Your task to perform on an android device: Go to Reddit.com Image 0: 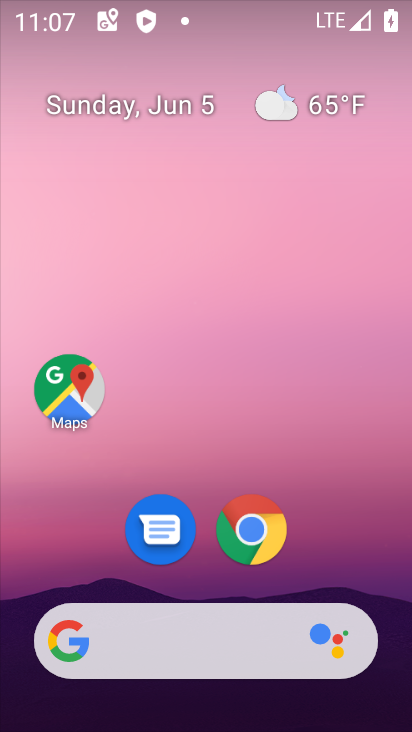
Step 0: click (213, 656)
Your task to perform on an android device: Go to Reddit.com Image 1: 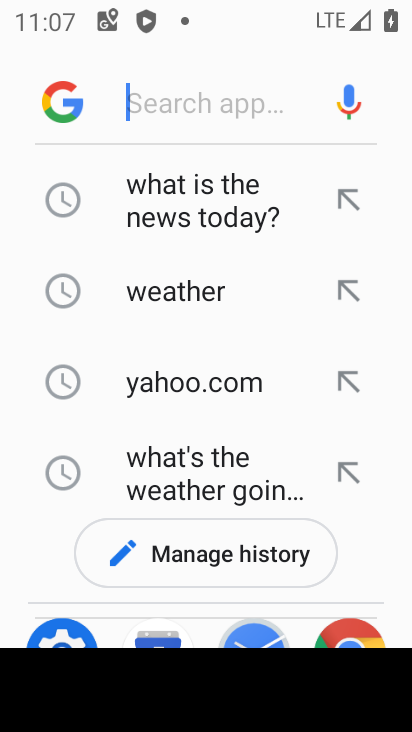
Step 1: type "reddit.com"
Your task to perform on an android device: Go to Reddit.com Image 2: 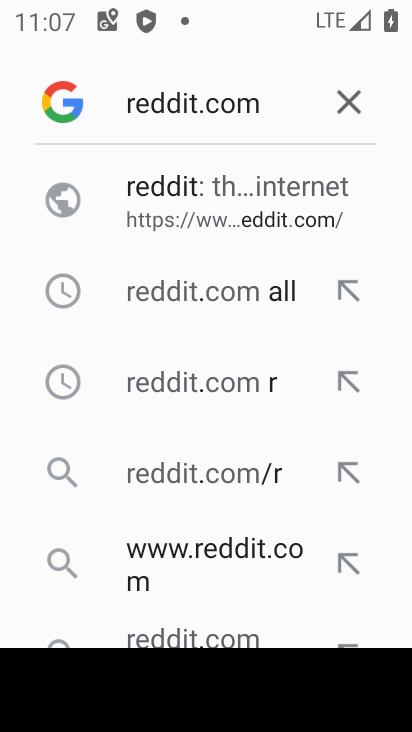
Step 2: click (256, 207)
Your task to perform on an android device: Go to Reddit.com Image 3: 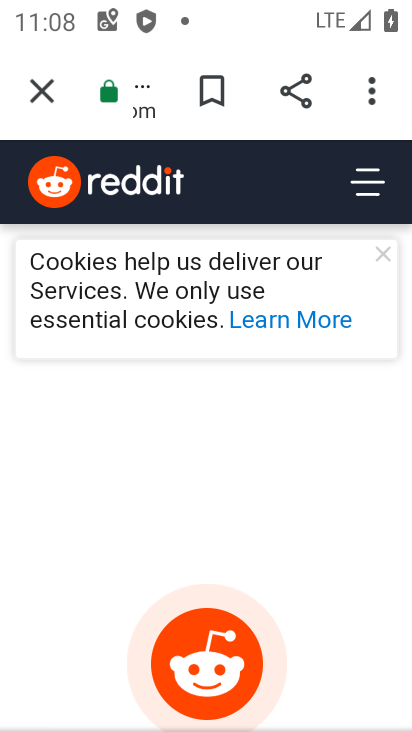
Step 3: task complete